Your task to perform on an android device: Search for Mexican restaurants on Maps Image 0: 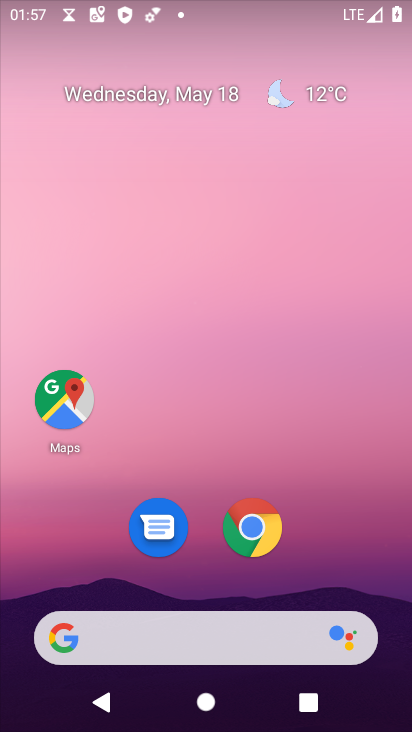
Step 0: click (85, 394)
Your task to perform on an android device: Search for Mexican restaurants on Maps Image 1: 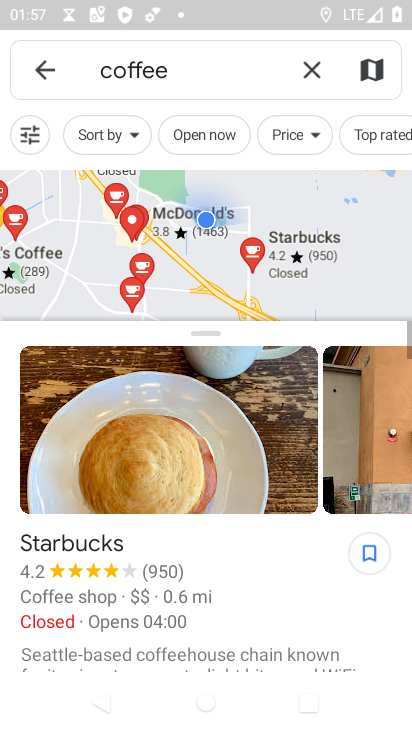
Step 1: click (302, 72)
Your task to perform on an android device: Search for Mexican restaurants on Maps Image 2: 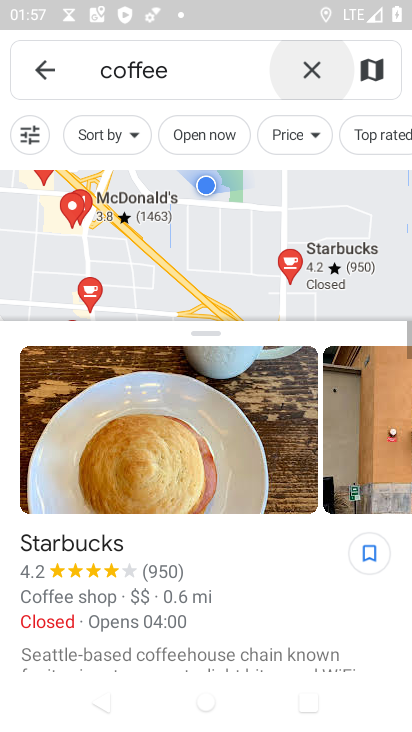
Step 2: click (199, 72)
Your task to perform on an android device: Search for Mexican restaurants on Maps Image 3: 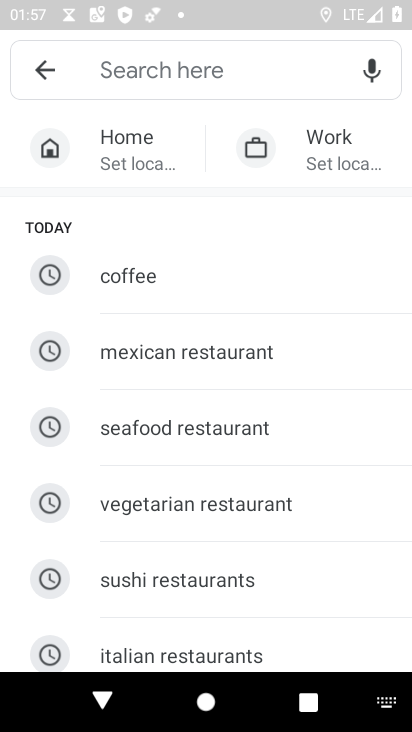
Step 3: click (210, 343)
Your task to perform on an android device: Search for Mexican restaurants on Maps Image 4: 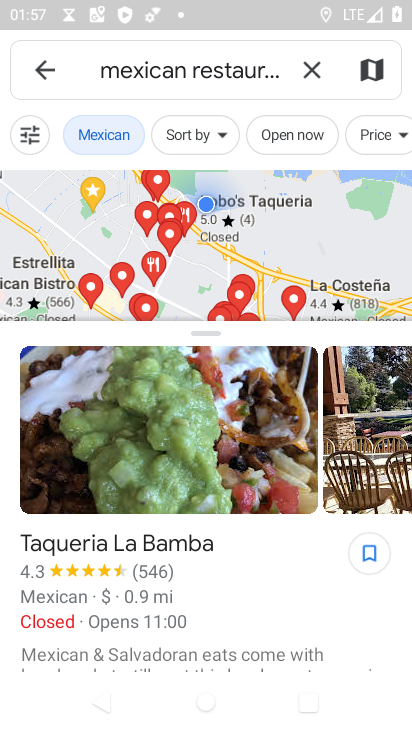
Step 4: task complete